Your task to perform on an android device: allow cookies in the chrome app Image 0: 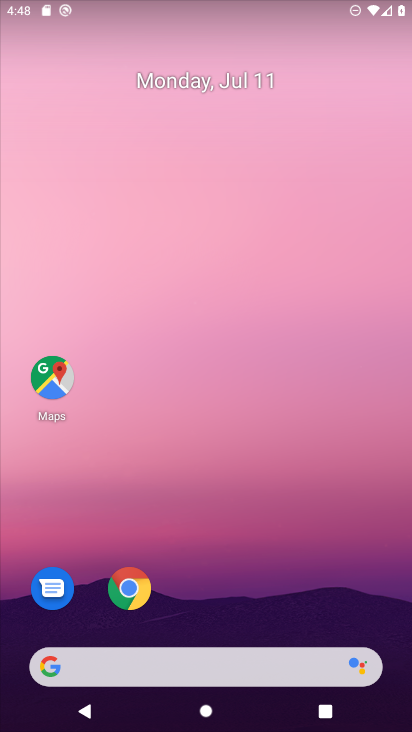
Step 0: drag from (224, 621) to (239, 106)
Your task to perform on an android device: allow cookies in the chrome app Image 1: 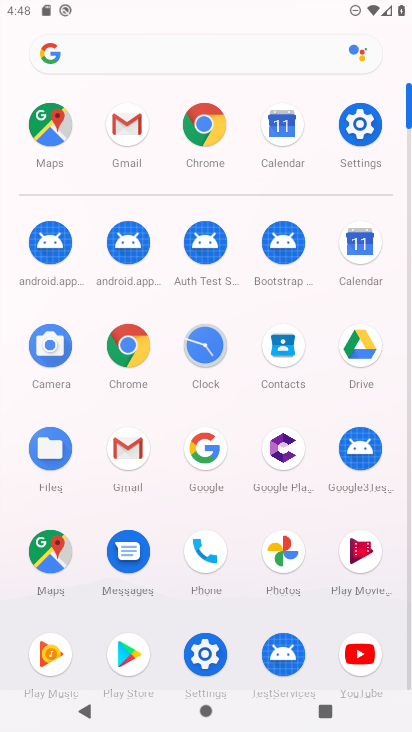
Step 1: click (209, 124)
Your task to perform on an android device: allow cookies in the chrome app Image 2: 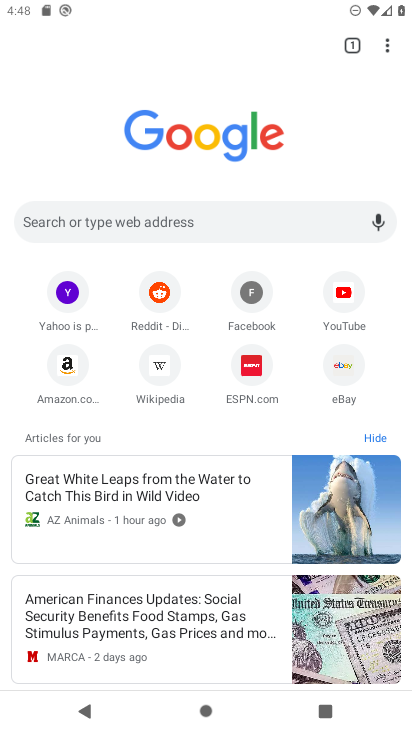
Step 2: drag from (383, 50) to (231, 437)
Your task to perform on an android device: allow cookies in the chrome app Image 3: 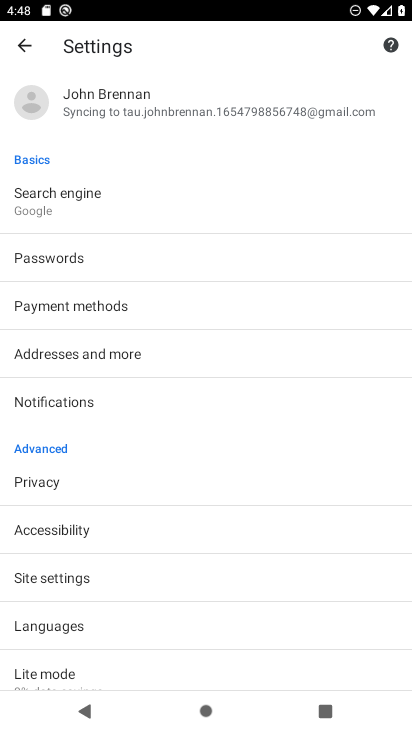
Step 3: click (45, 576)
Your task to perform on an android device: allow cookies in the chrome app Image 4: 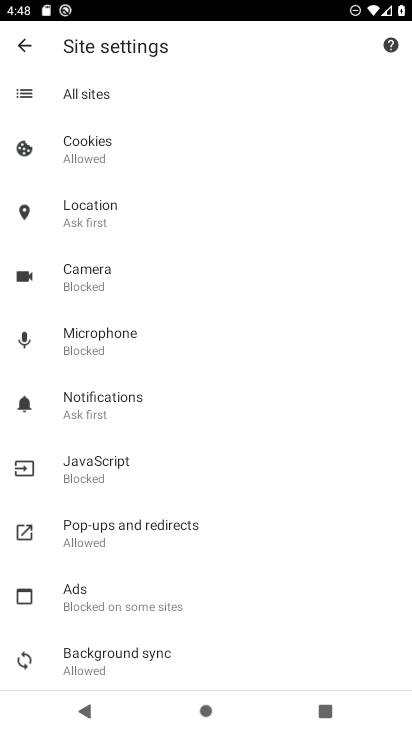
Step 4: click (87, 144)
Your task to perform on an android device: allow cookies in the chrome app Image 5: 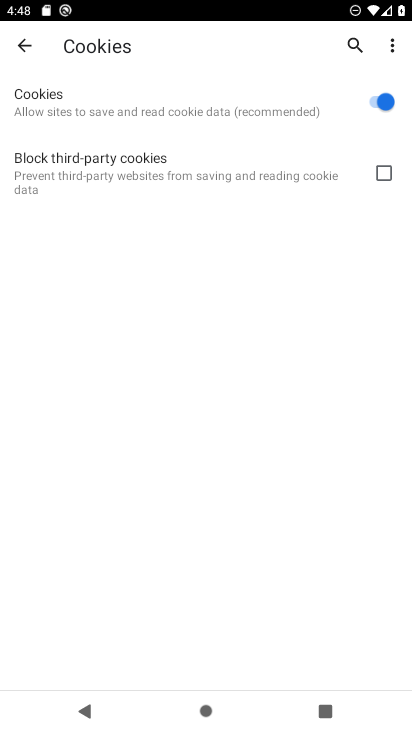
Step 5: task complete